Your task to perform on an android device: Show me popular videos on Youtube Image 0: 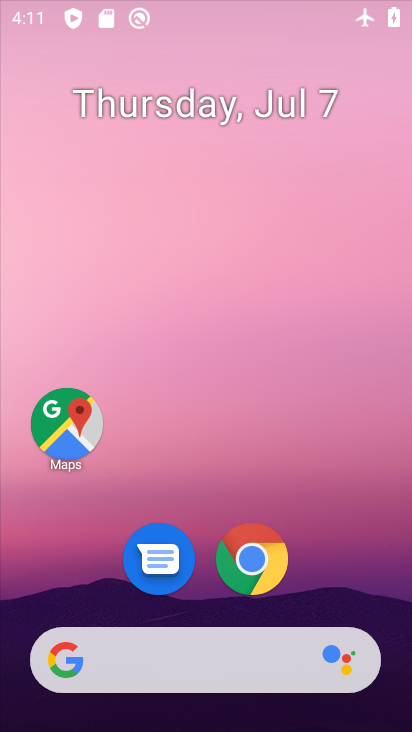
Step 0: drag from (206, 558) to (346, 472)
Your task to perform on an android device: Show me popular videos on Youtube Image 1: 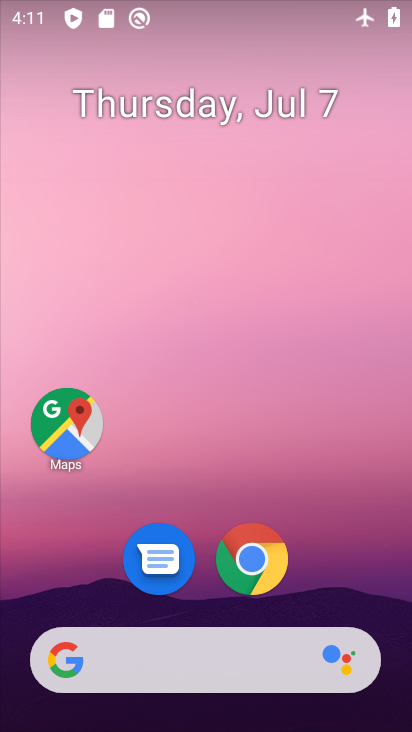
Step 1: drag from (186, 628) to (331, 17)
Your task to perform on an android device: Show me popular videos on Youtube Image 2: 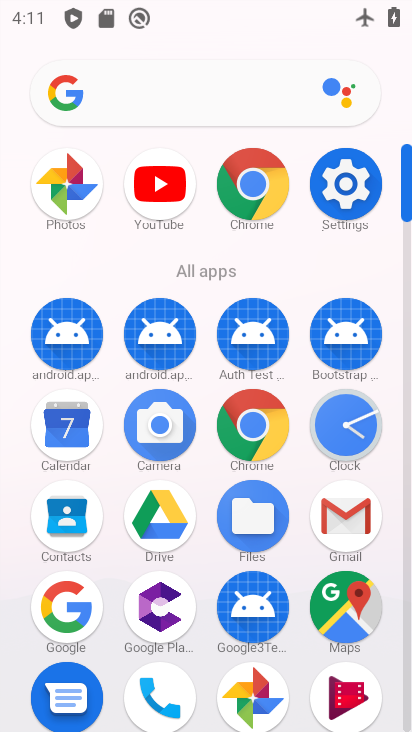
Step 2: click (180, 179)
Your task to perform on an android device: Show me popular videos on Youtube Image 3: 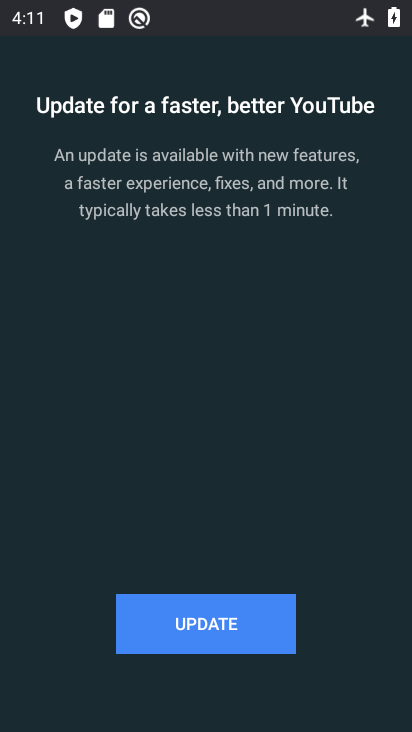
Step 3: press back button
Your task to perform on an android device: Show me popular videos on Youtube Image 4: 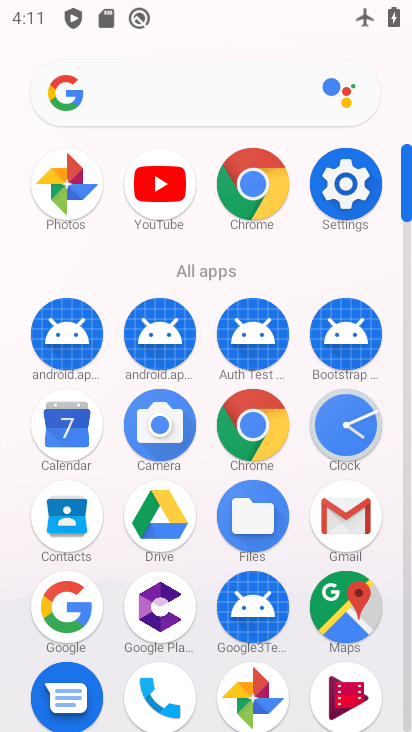
Step 4: click (131, 181)
Your task to perform on an android device: Show me popular videos on Youtube Image 5: 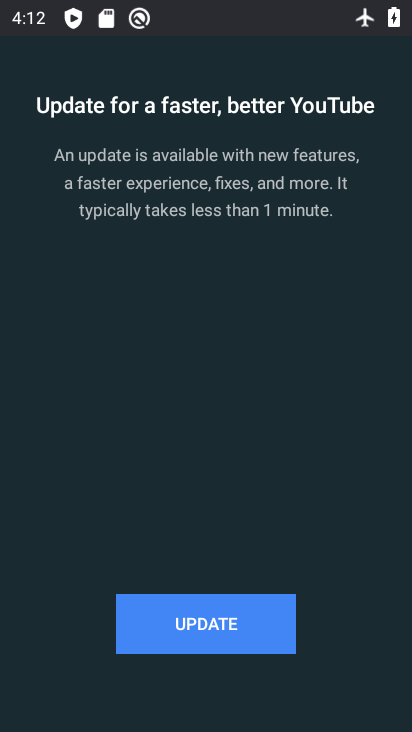
Step 5: click (153, 628)
Your task to perform on an android device: Show me popular videos on Youtube Image 6: 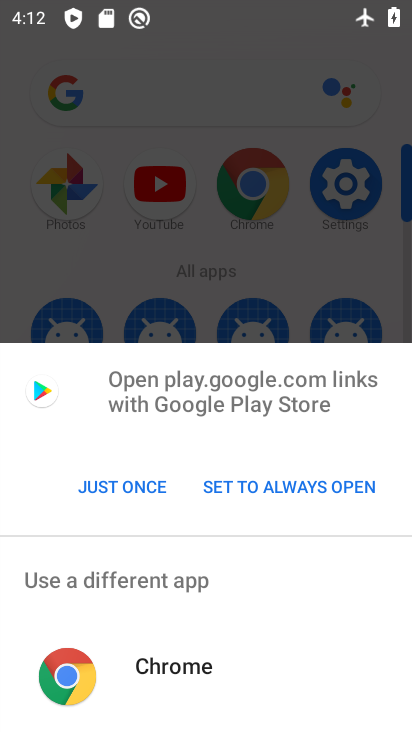
Step 6: click (87, 483)
Your task to perform on an android device: Show me popular videos on Youtube Image 7: 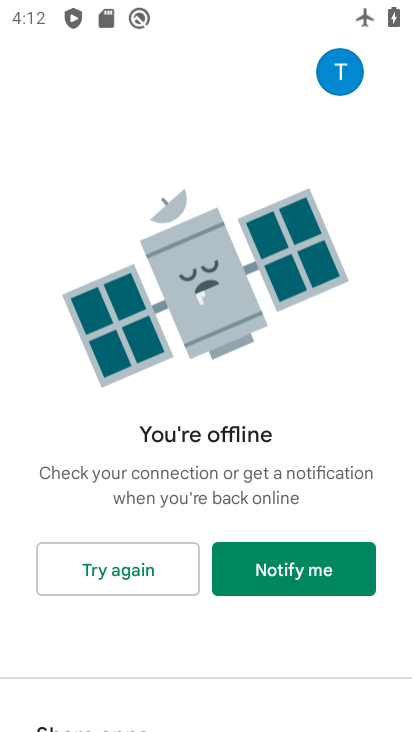
Step 7: task complete